Your task to perform on an android device: What's the weather going to be tomorrow? Image 0: 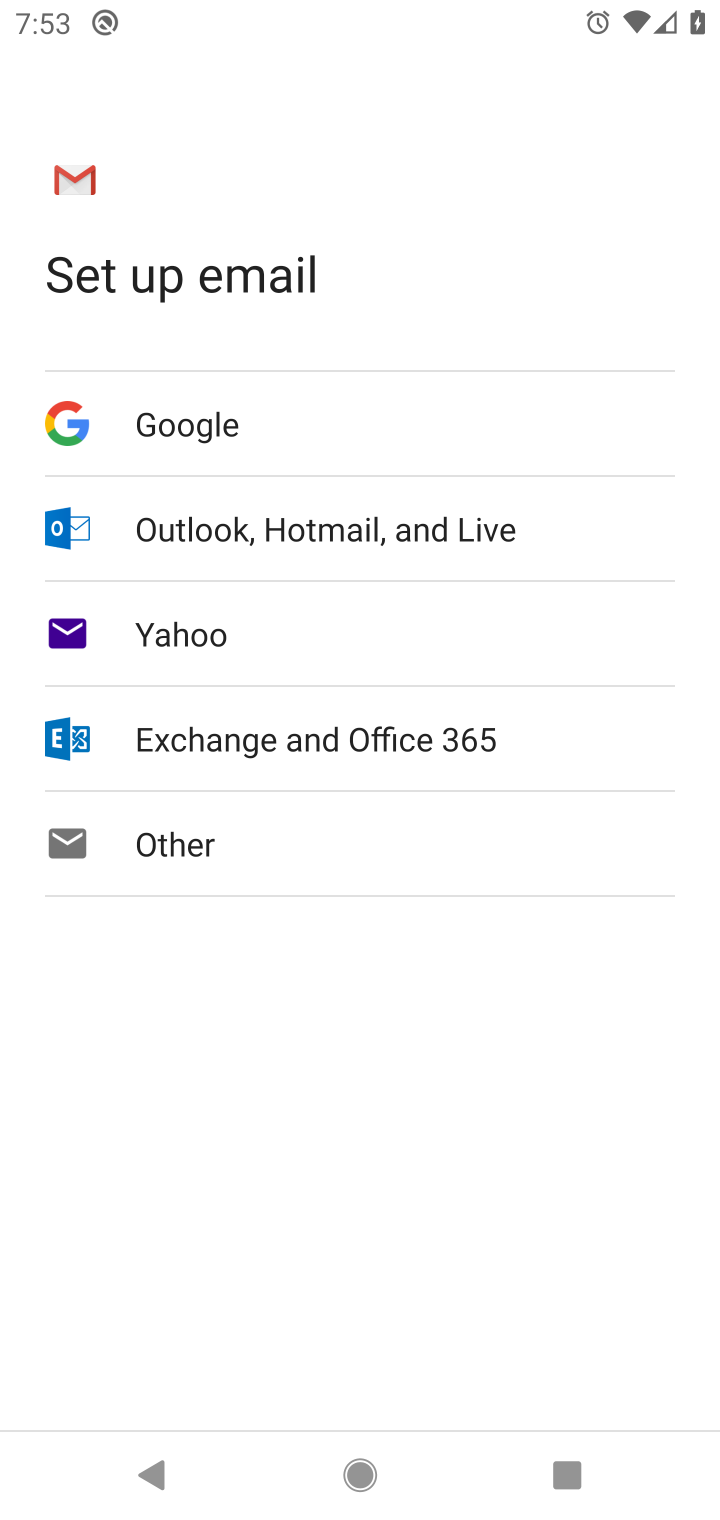
Step 0: press home button
Your task to perform on an android device: What's the weather going to be tomorrow? Image 1: 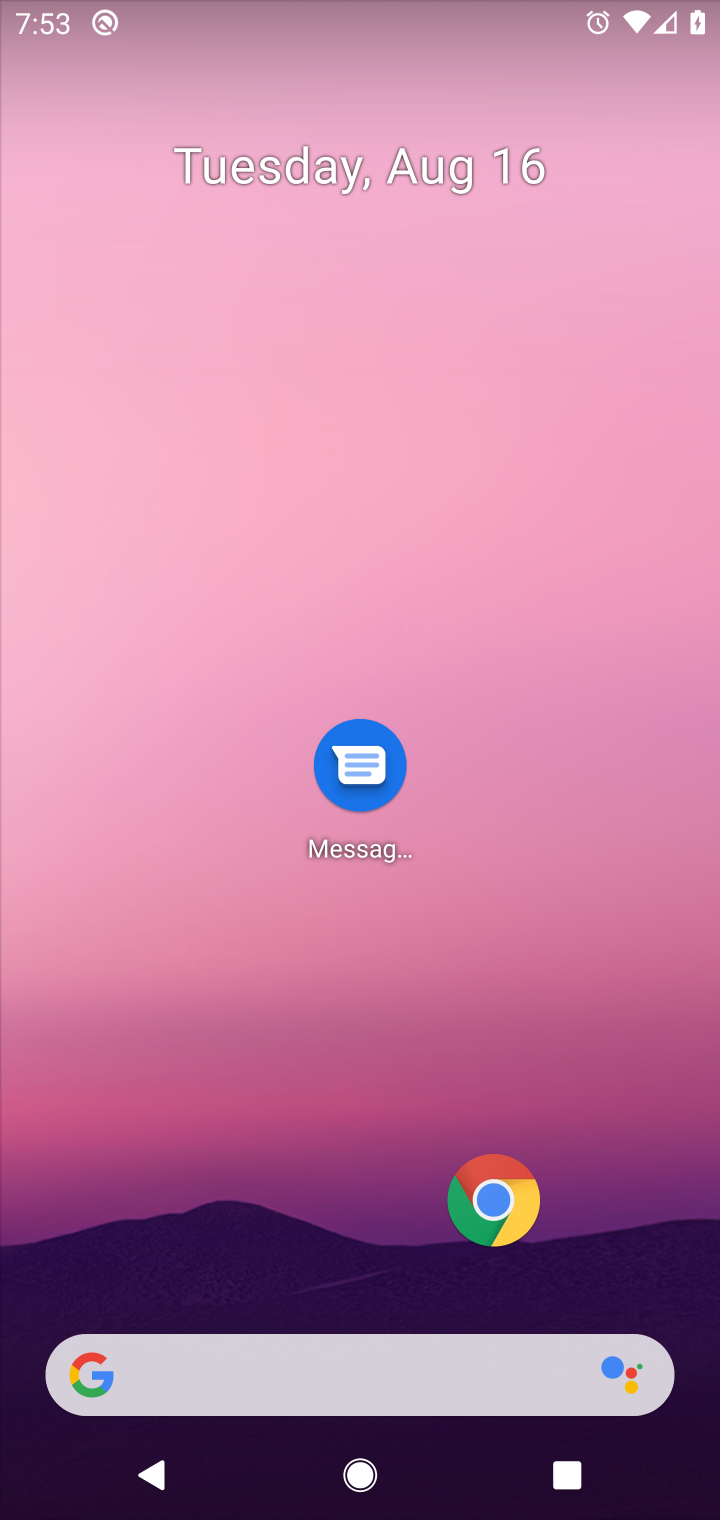
Step 1: click (197, 1382)
Your task to perform on an android device: What's the weather going to be tomorrow? Image 2: 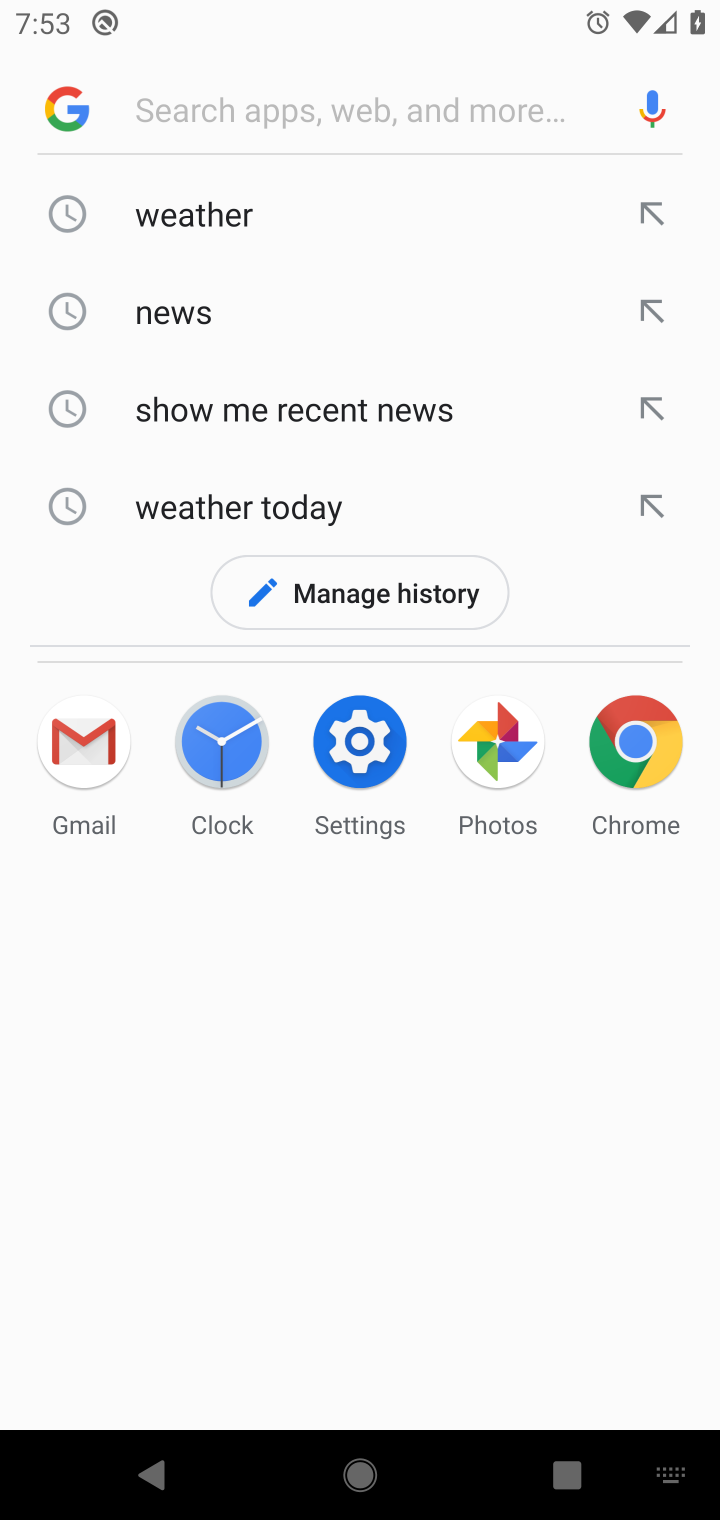
Step 2: type "What's the weather going to be tomorrow?"
Your task to perform on an android device: What's the weather going to be tomorrow? Image 3: 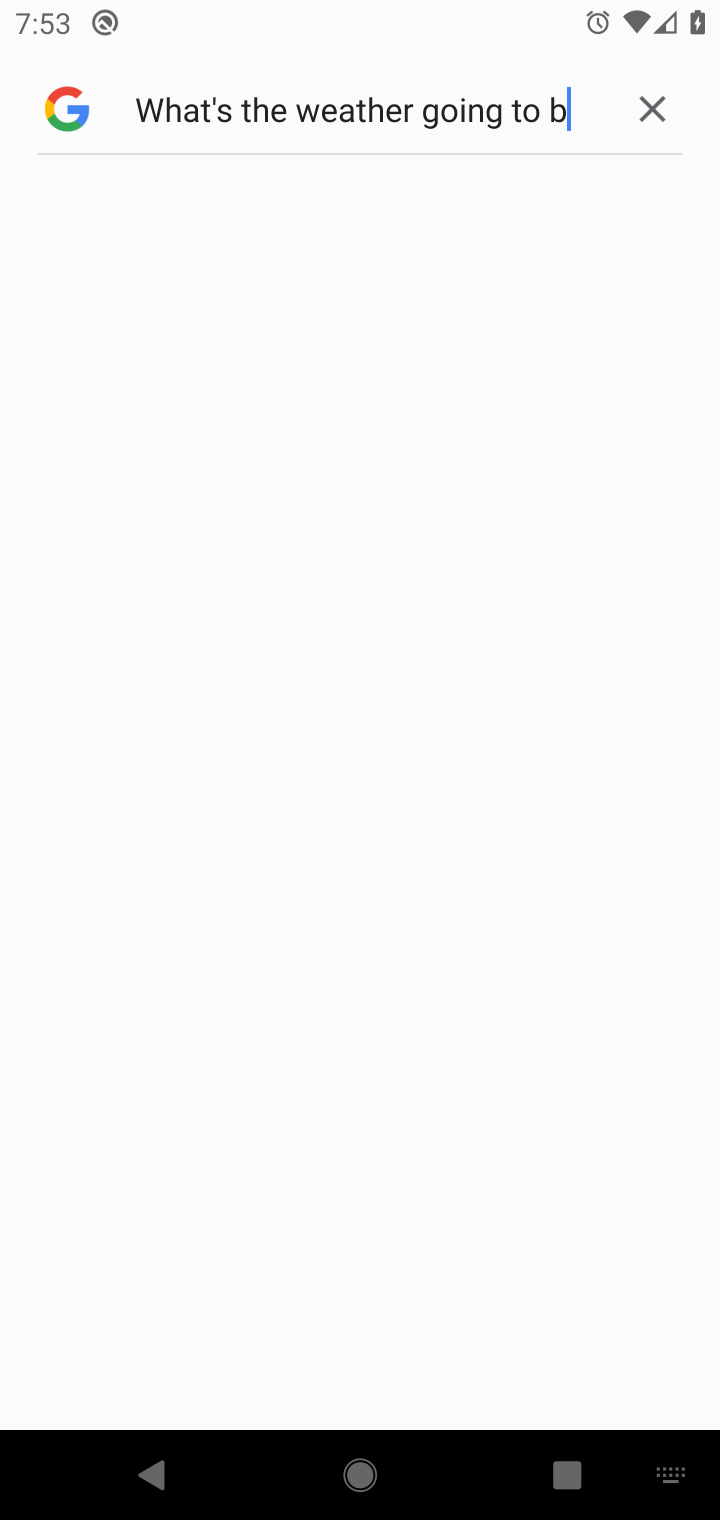
Step 3: type ""
Your task to perform on an android device: What's the weather going to be tomorrow? Image 4: 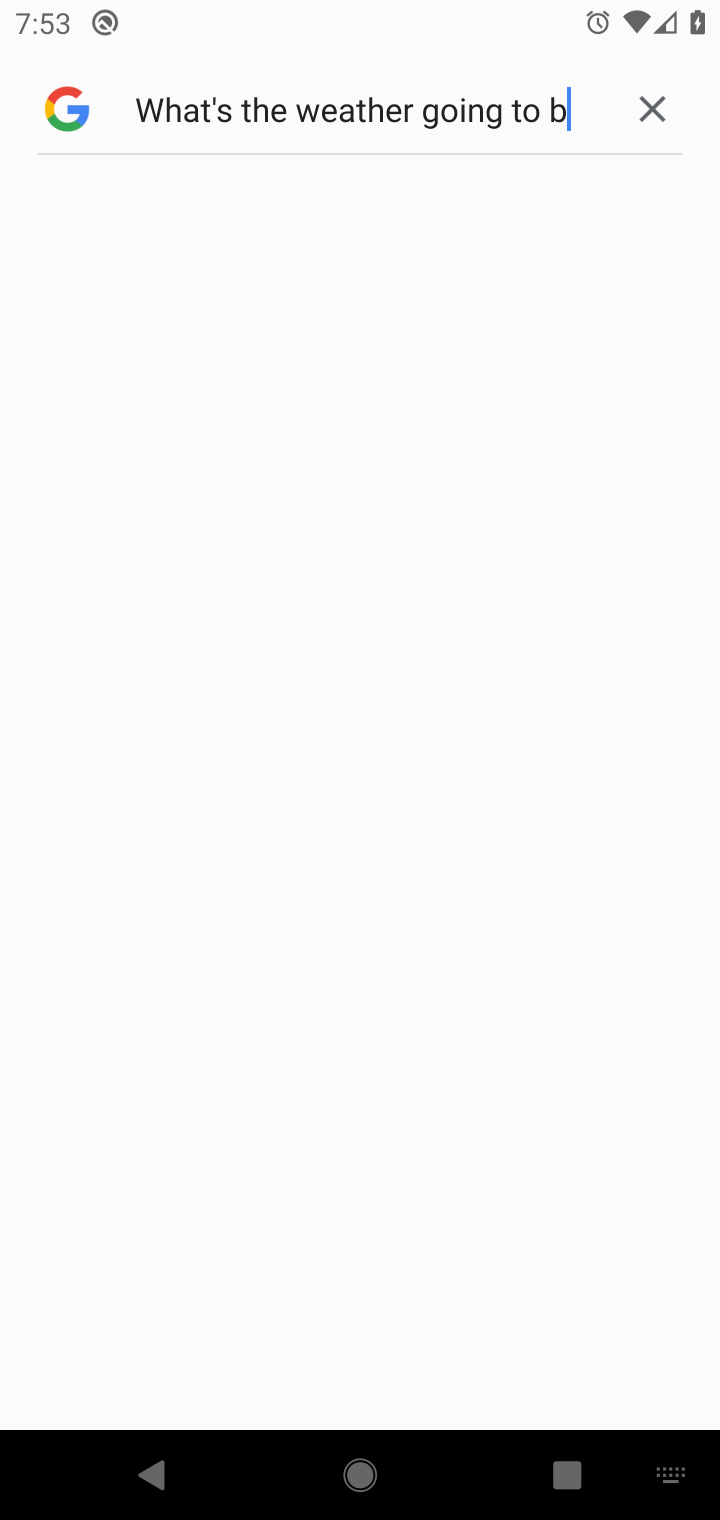
Step 4: type ""
Your task to perform on an android device: What's the weather going to be tomorrow? Image 5: 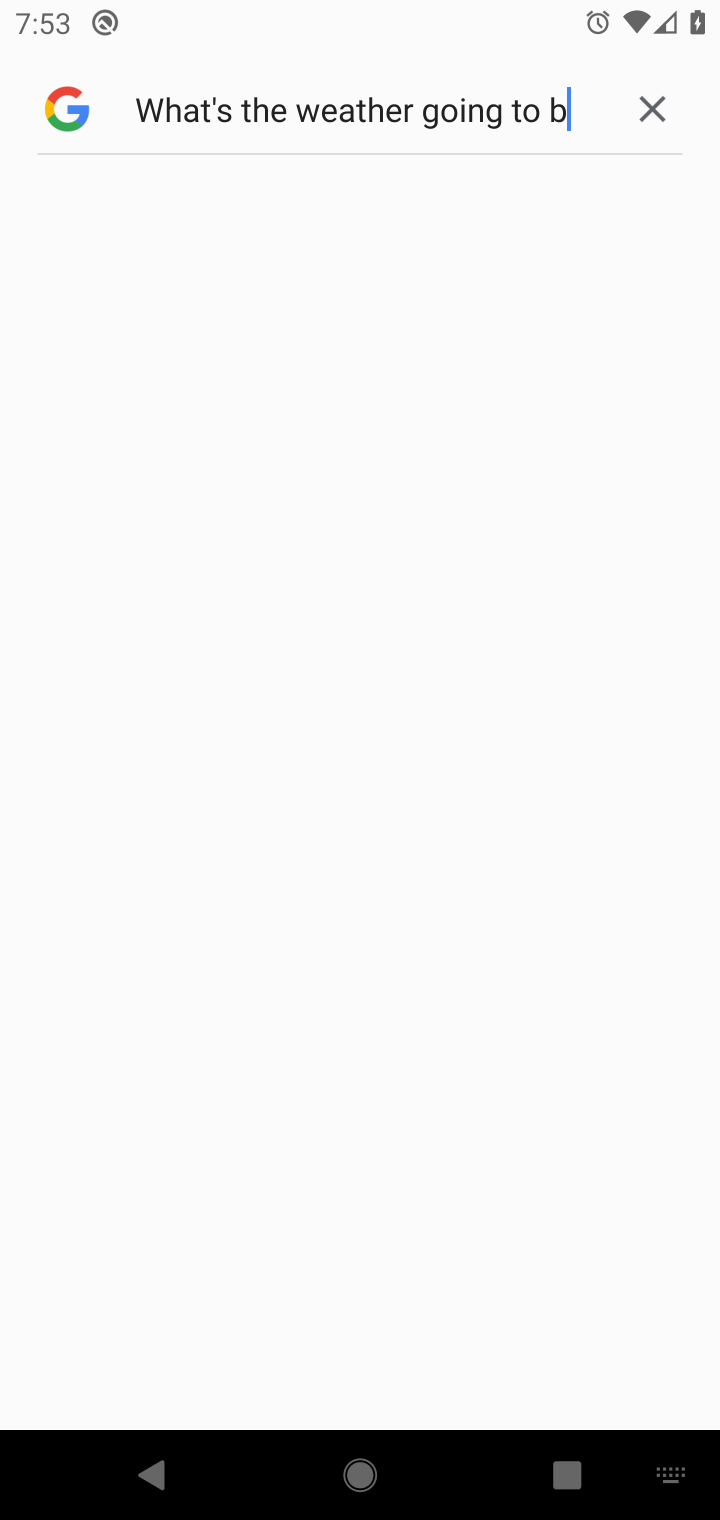
Step 5: type ""
Your task to perform on an android device: What's the weather going to be tomorrow? Image 6: 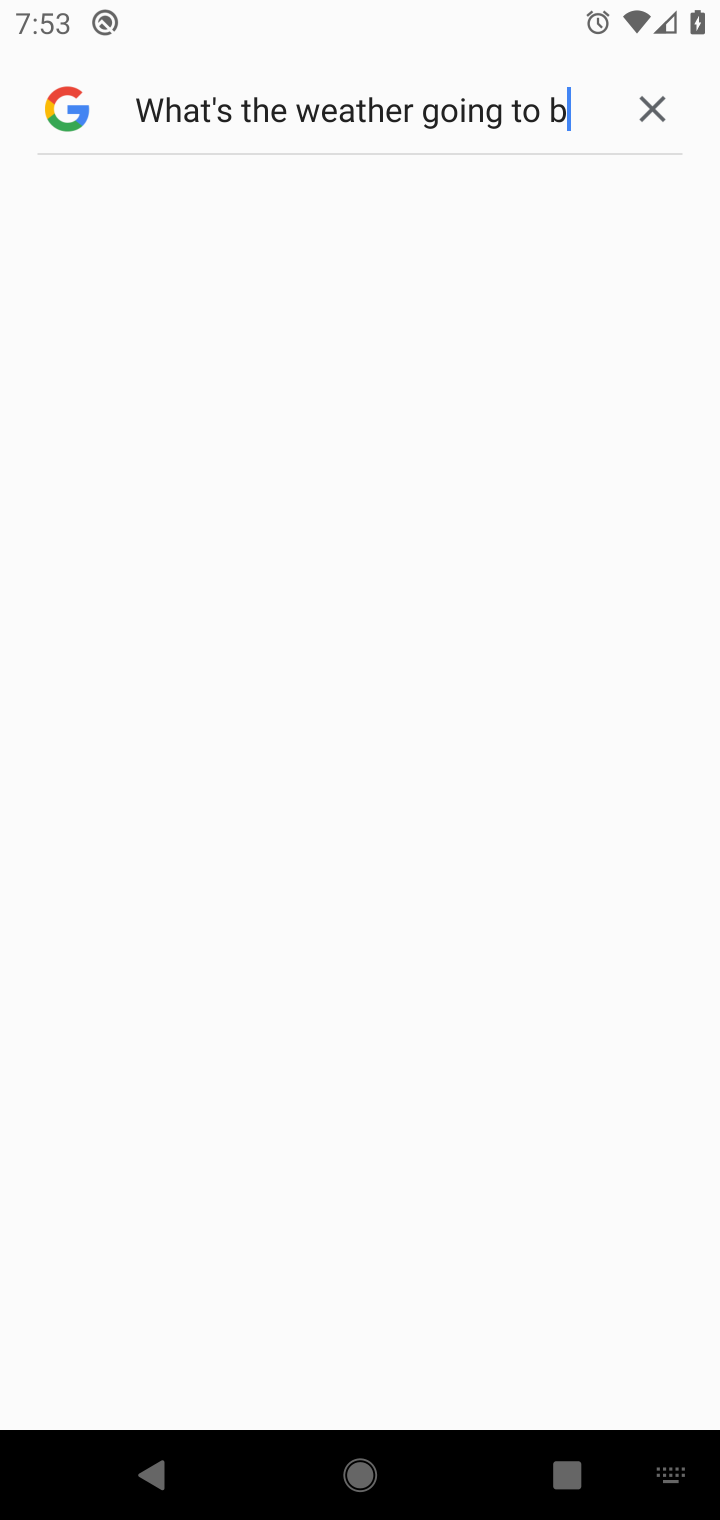
Step 6: type ""
Your task to perform on an android device: What's the weather going to be tomorrow? Image 7: 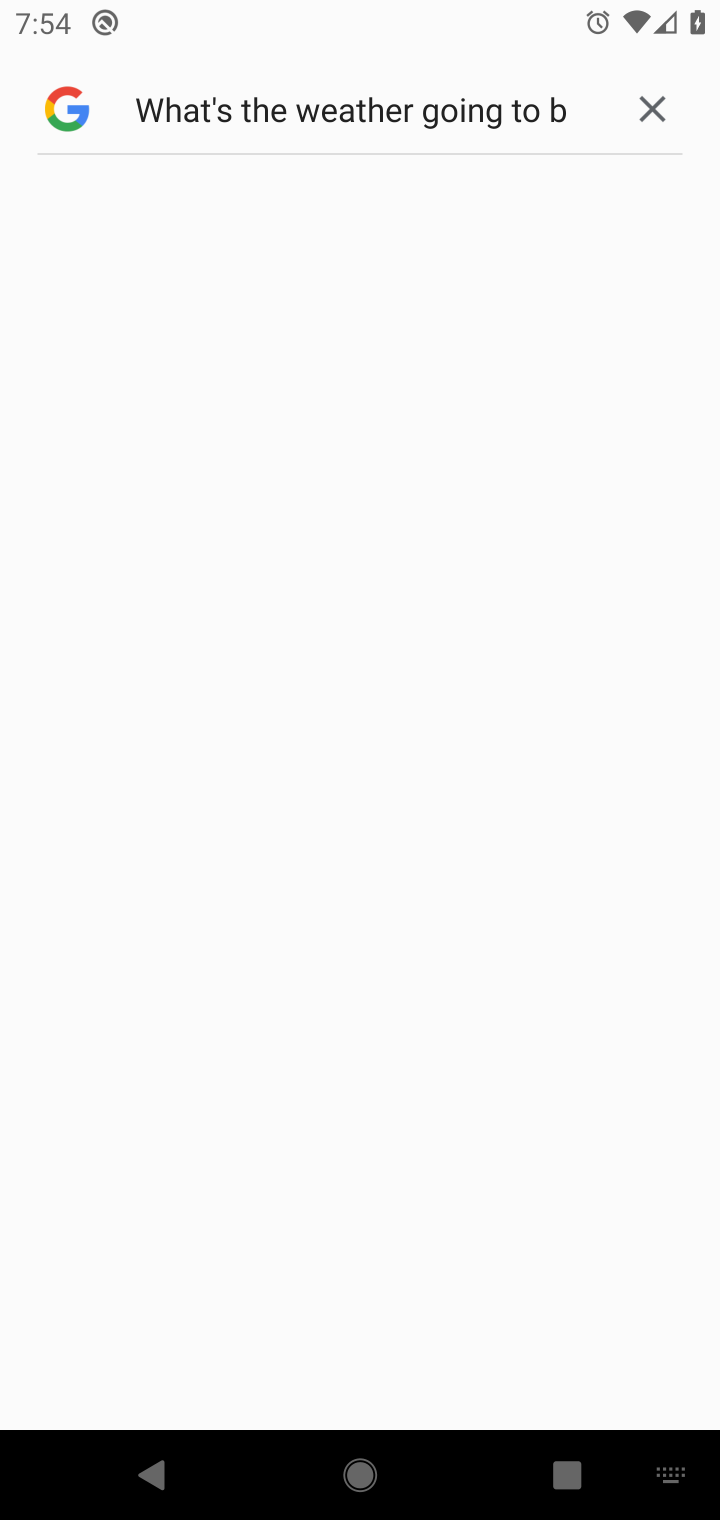
Step 7: task complete